Your task to perform on an android device: What's the weather going to be this weekend? Image 0: 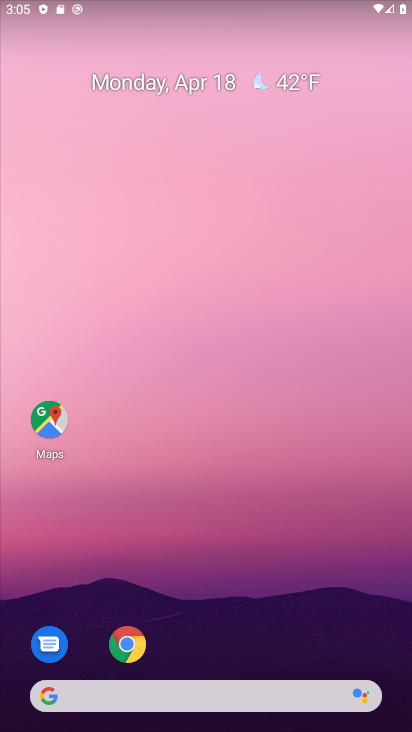
Step 0: drag from (201, 672) to (211, 115)
Your task to perform on an android device: What's the weather going to be this weekend? Image 1: 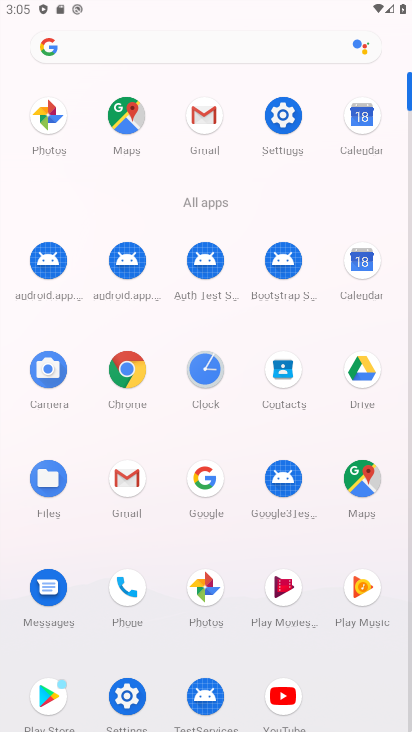
Step 1: click (279, 120)
Your task to perform on an android device: What's the weather going to be this weekend? Image 2: 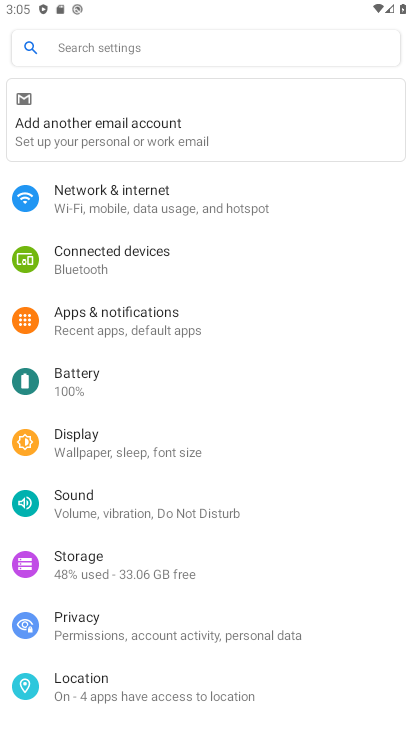
Step 2: click (156, 203)
Your task to perform on an android device: What's the weather going to be this weekend? Image 3: 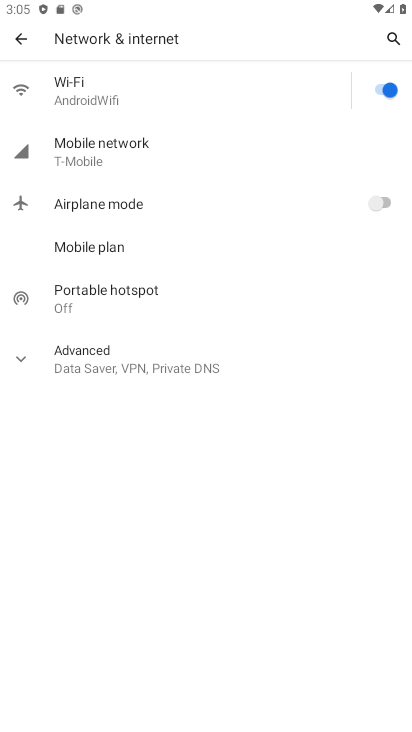
Step 3: click (385, 90)
Your task to perform on an android device: What's the weather going to be this weekend? Image 4: 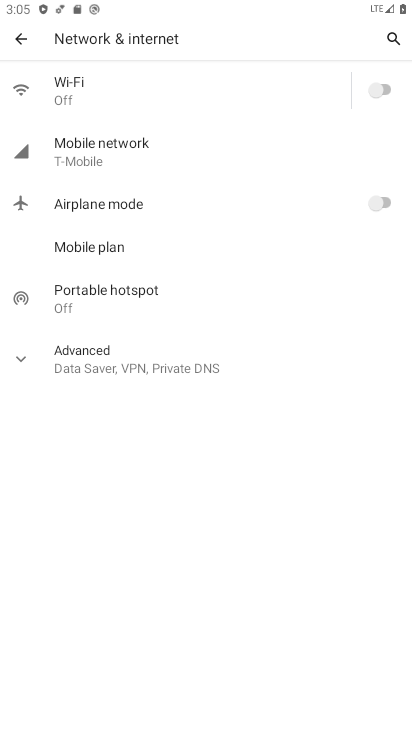
Step 4: task complete